Your task to perform on an android device: Do I have any events today? Image 0: 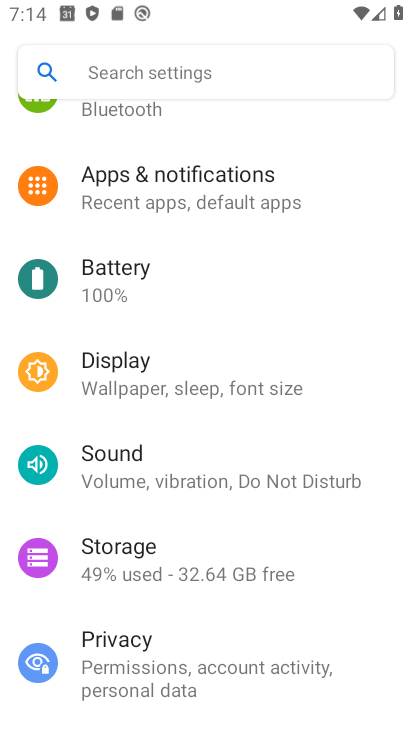
Step 0: press home button
Your task to perform on an android device: Do I have any events today? Image 1: 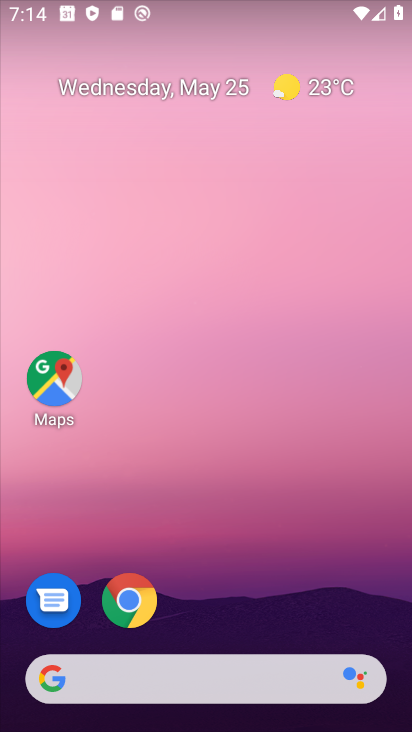
Step 1: drag from (288, 590) to (197, 174)
Your task to perform on an android device: Do I have any events today? Image 2: 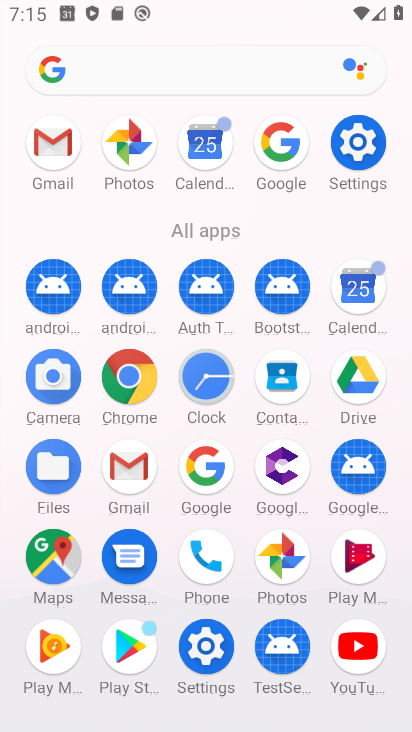
Step 2: click (204, 144)
Your task to perform on an android device: Do I have any events today? Image 3: 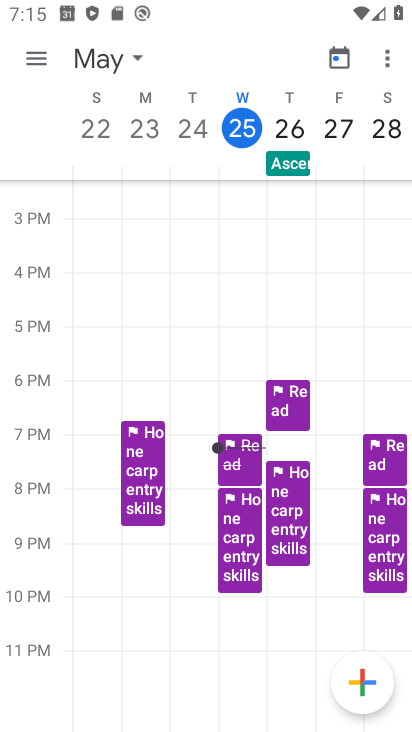
Step 3: click (139, 58)
Your task to perform on an android device: Do I have any events today? Image 4: 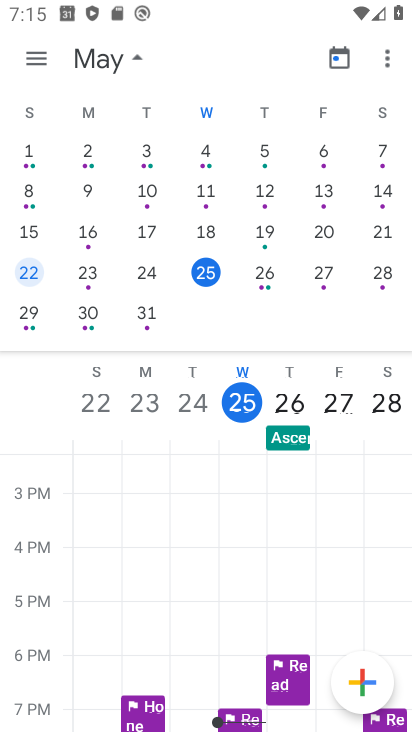
Step 4: click (340, 63)
Your task to perform on an android device: Do I have any events today? Image 5: 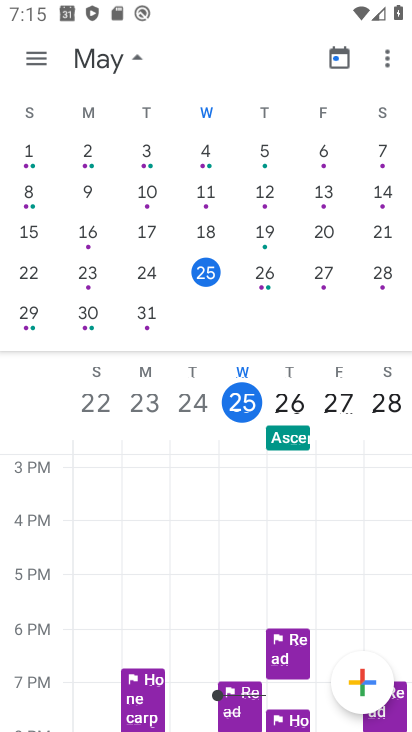
Step 5: click (215, 259)
Your task to perform on an android device: Do I have any events today? Image 6: 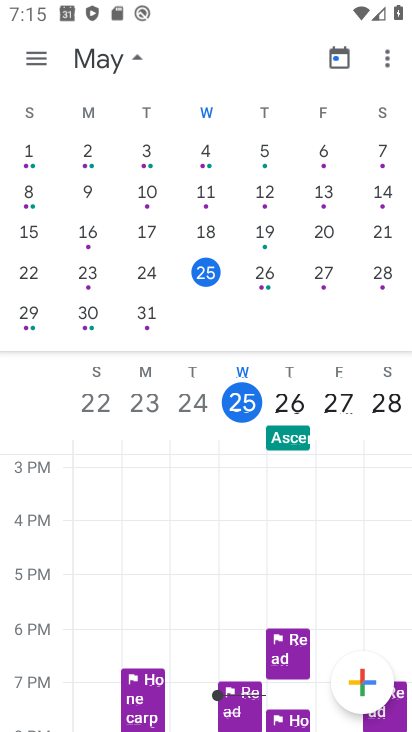
Step 6: click (33, 56)
Your task to perform on an android device: Do I have any events today? Image 7: 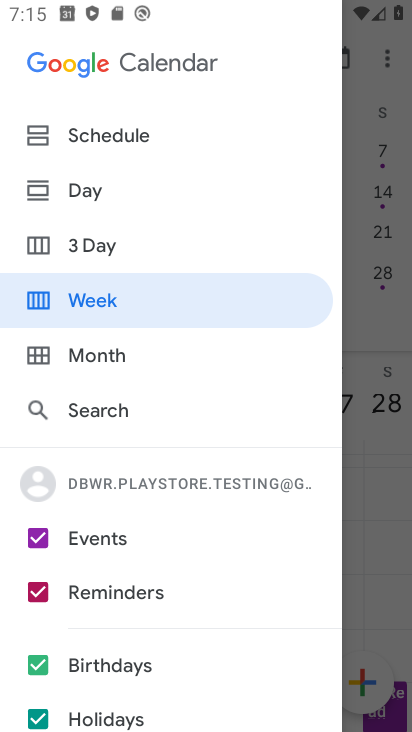
Step 7: click (111, 143)
Your task to perform on an android device: Do I have any events today? Image 8: 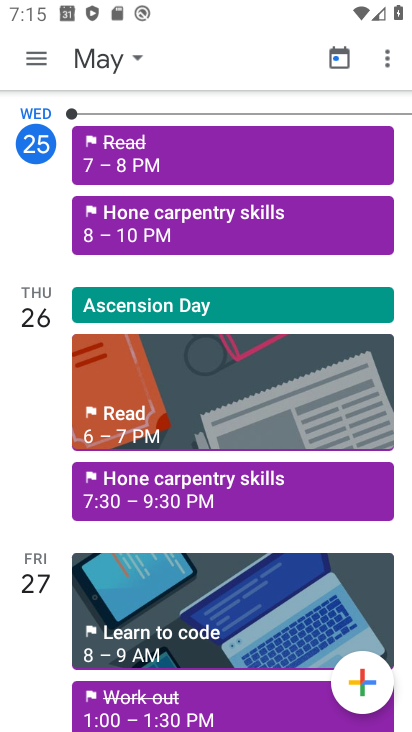
Step 8: task complete